Your task to perform on an android device: find which apps use the phone's location Image 0: 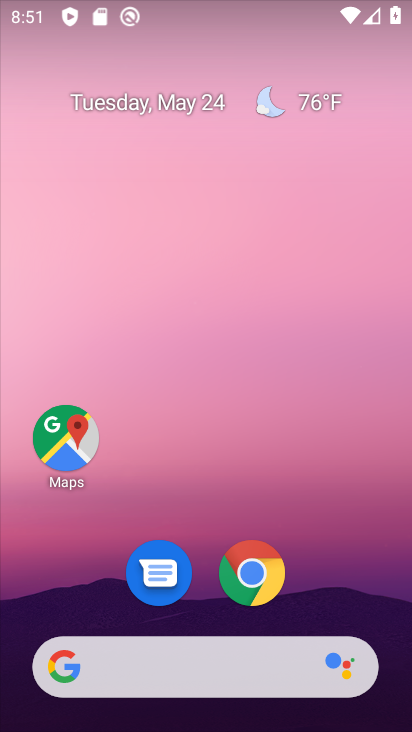
Step 0: drag from (78, 563) to (204, 172)
Your task to perform on an android device: find which apps use the phone's location Image 1: 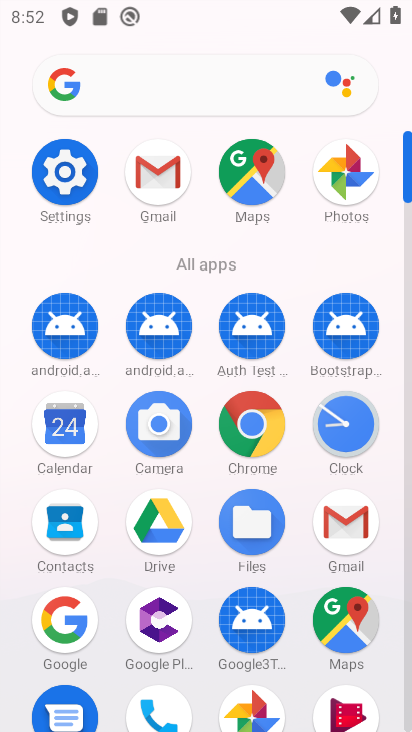
Step 1: drag from (150, 638) to (224, 393)
Your task to perform on an android device: find which apps use the phone's location Image 2: 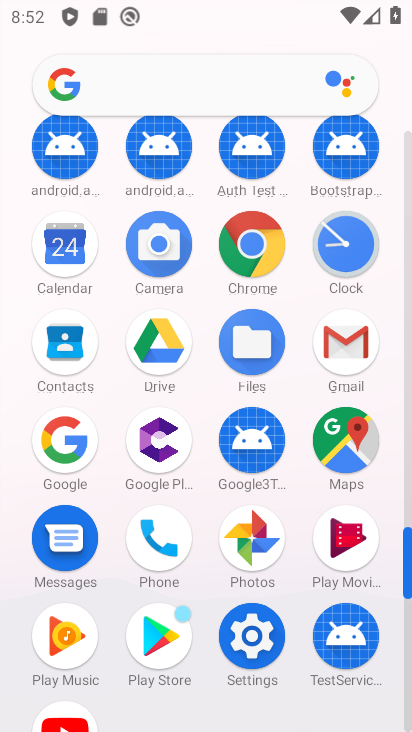
Step 2: click (245, 646)
Your task to perform on an android device: find which apps use the phone's location Image 3: 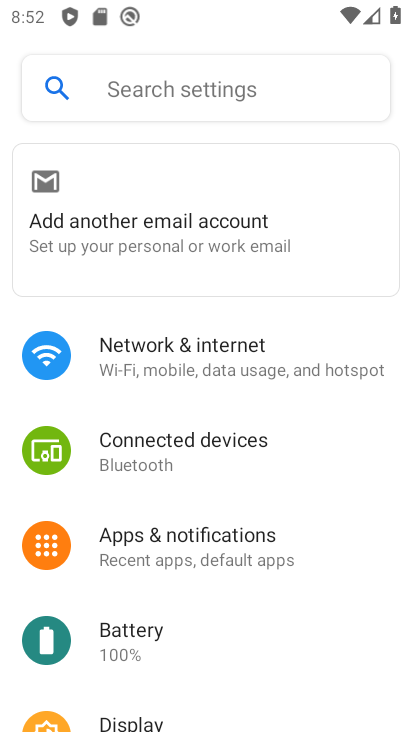
Step 3: drag from (182, 654) to (293, 343)
Your task to perform on an android device: find which apps use the phone's location Image 4: 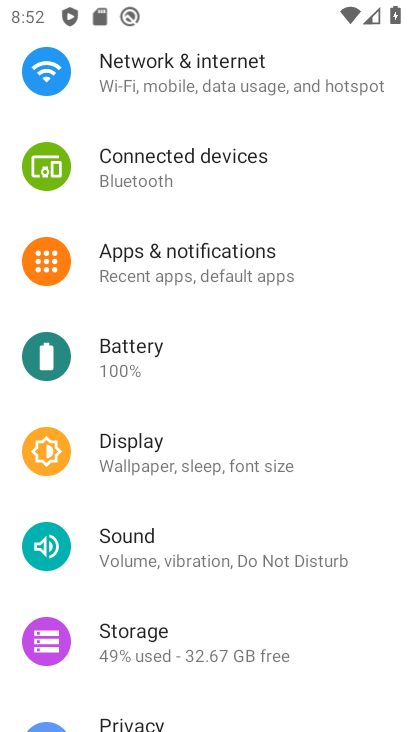
Step 4: drag from (233, 665) to (314, 308)
Your task to perform on an android device: find which apps use the phone's location Image 5: 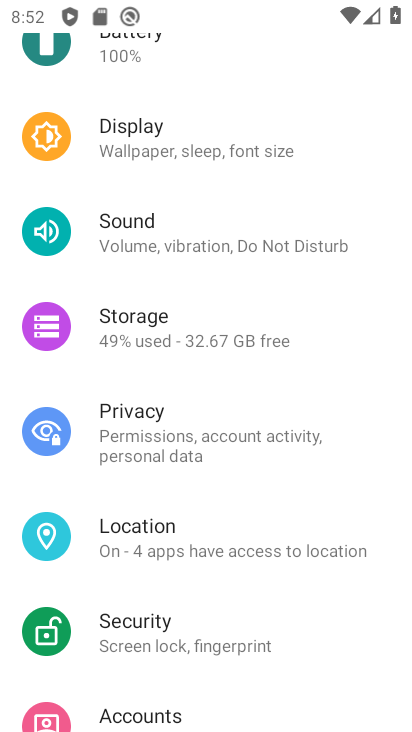
Step 5: click (157, 537)
Your task to perform on an android device: find which apps use the phone's location Image 6: 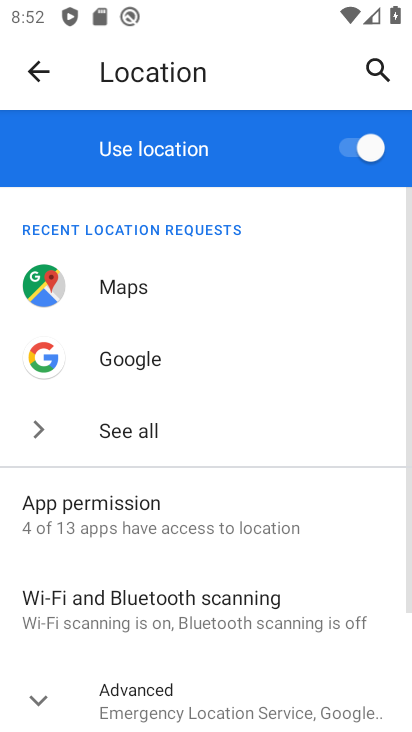
Step 6: drag from (208, 673) to (249, 543)
Your task to perform on an android device: find which apps use the phone's location Image 7: 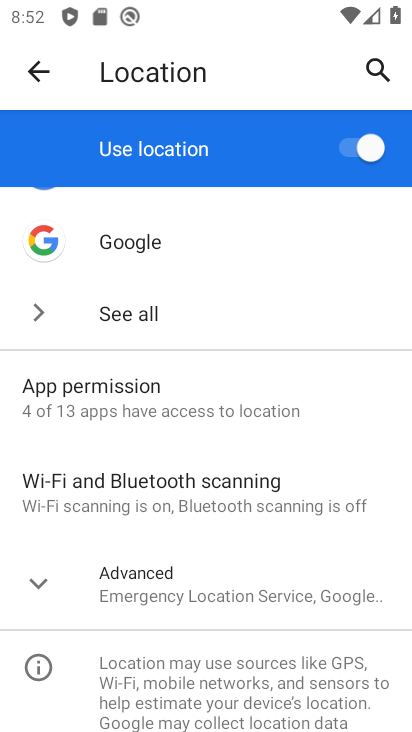
Step 7: click (138, 419)
Your task to perform on an android device: find which apps use the phone's location Image 8: 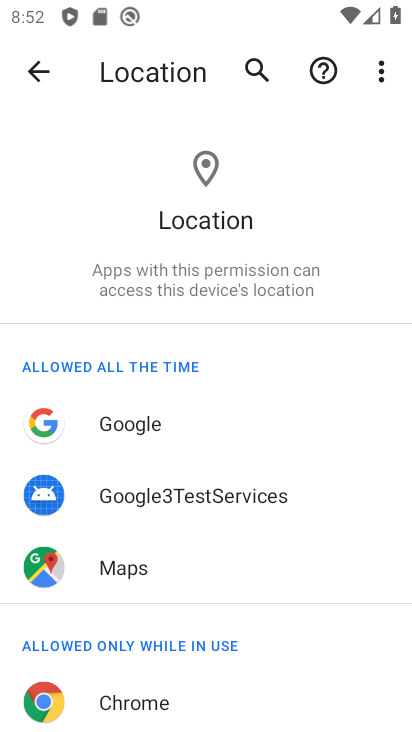
Step 8: task complete